Your task to perform on an android device: open device folders in google photos Image 0: 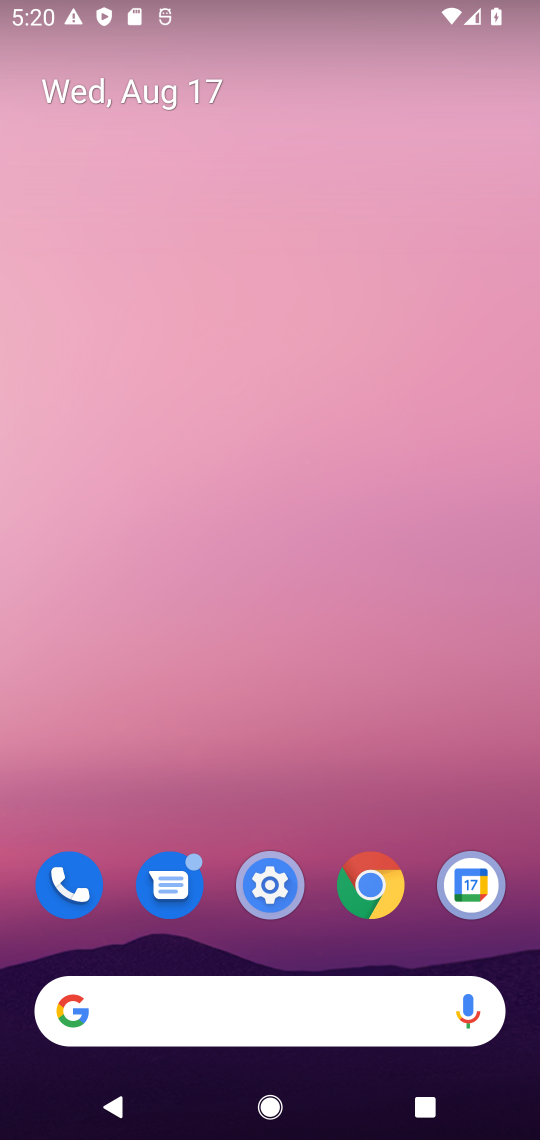
Step 0: drag from (318, 689) to (270, 10)
Your task to perform on an android device: open device folders in google photos Image 1: 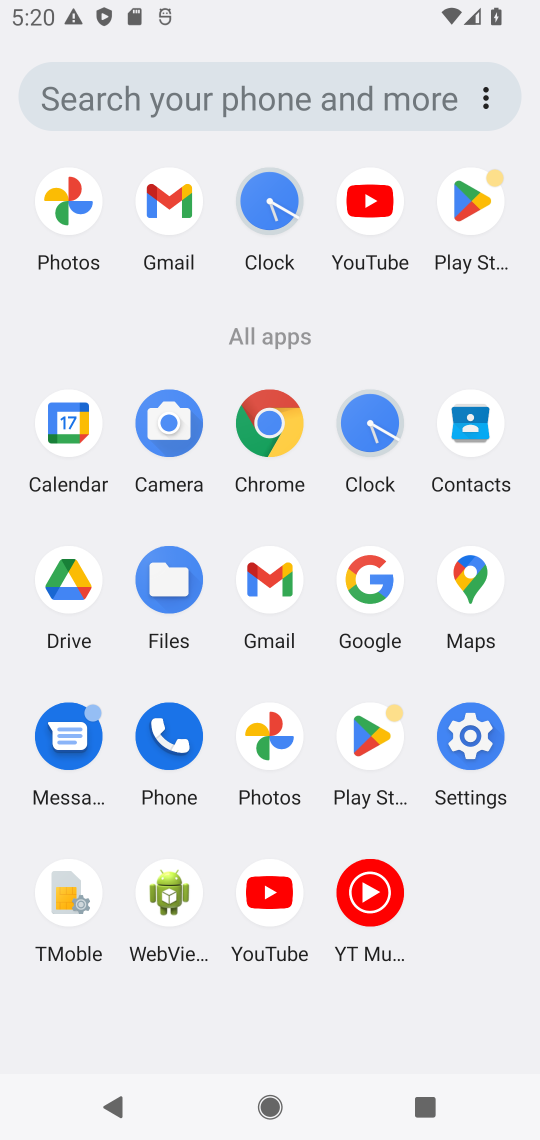
Step 1: click (256, 742)
Your task to perform on an android device: open device folders in google photos Image 2: 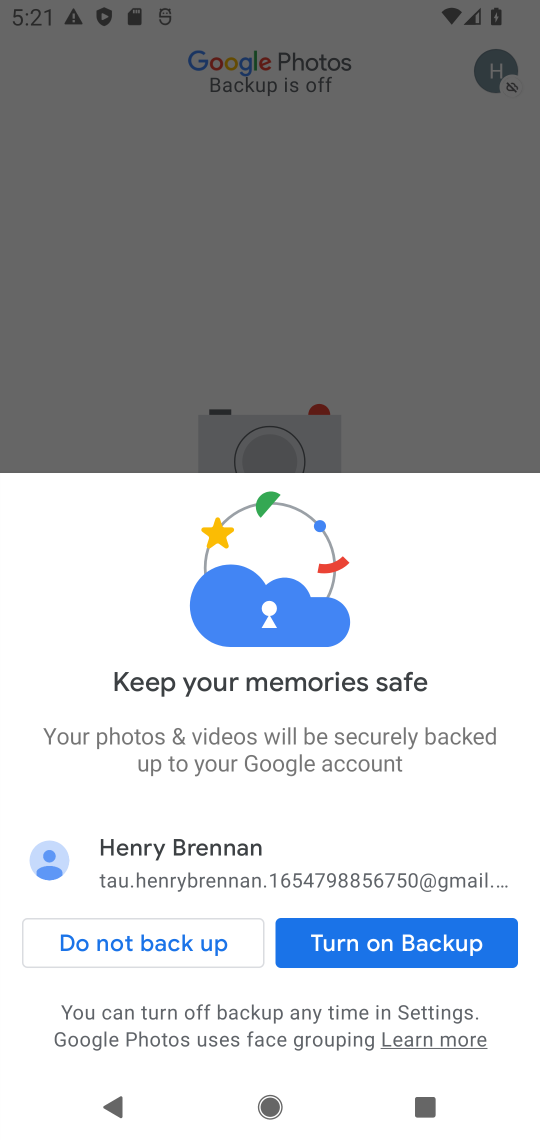
Step 2: click (383, 931)
Your task to perform on an android device: open device folders in google photos Image 3: 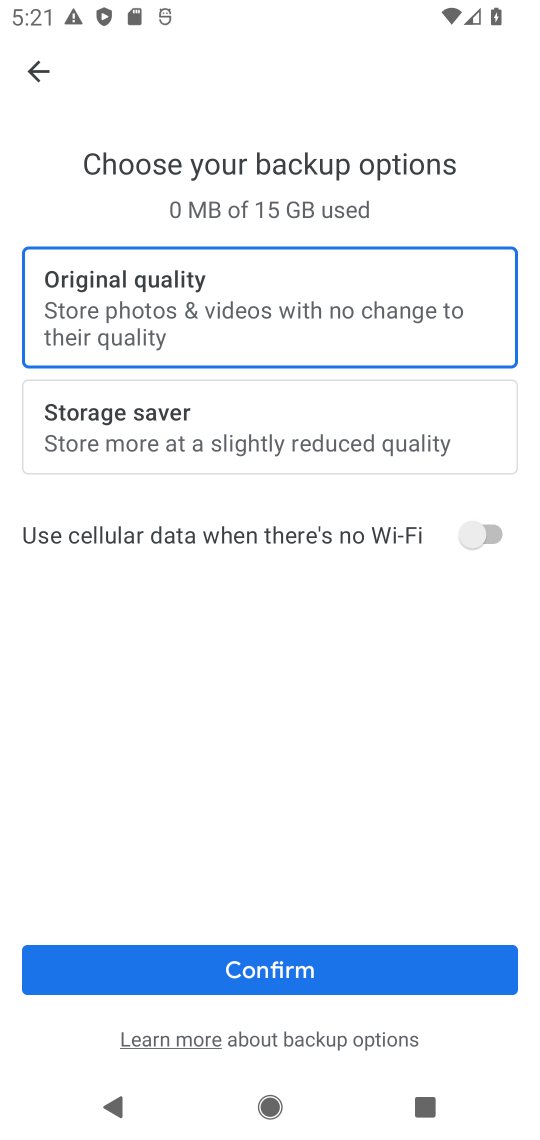
Step 3: click (366, 953)
Your task to perform on an android device: open device folders in google photos Image 4: 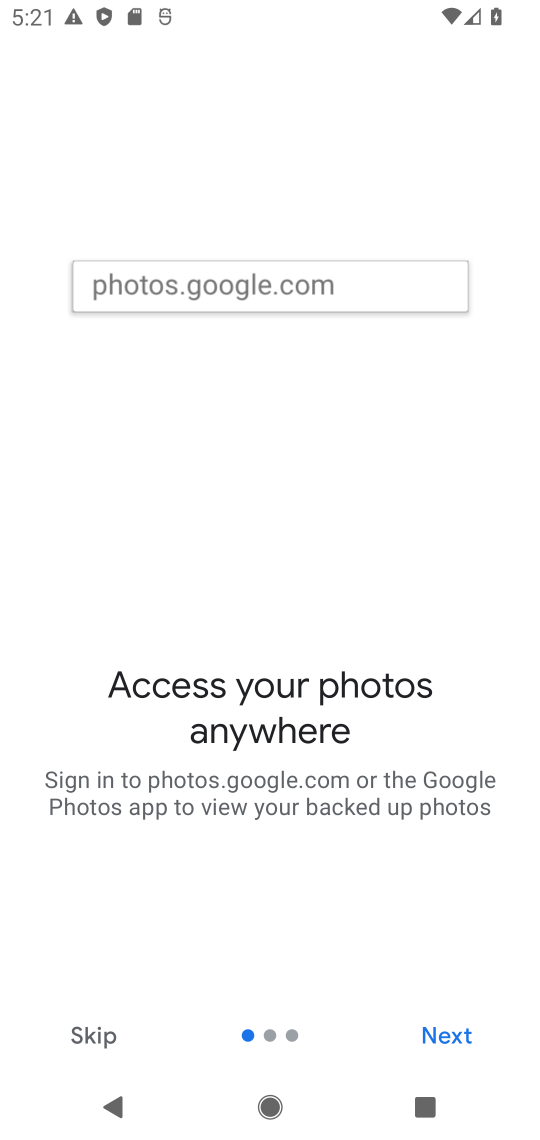
Step 4: click (452, 1021)
Your task to perform on an android device: open device folders in google photos Image 5: 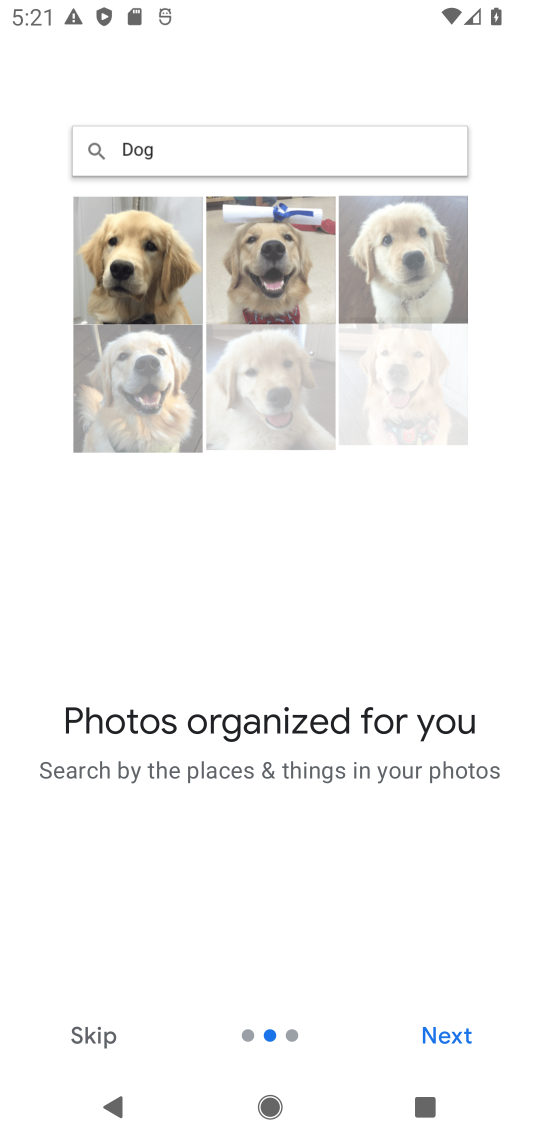
Step 5: click (445, 1033)
Your task to perform on an android device: open device folders in google photos Image 6: 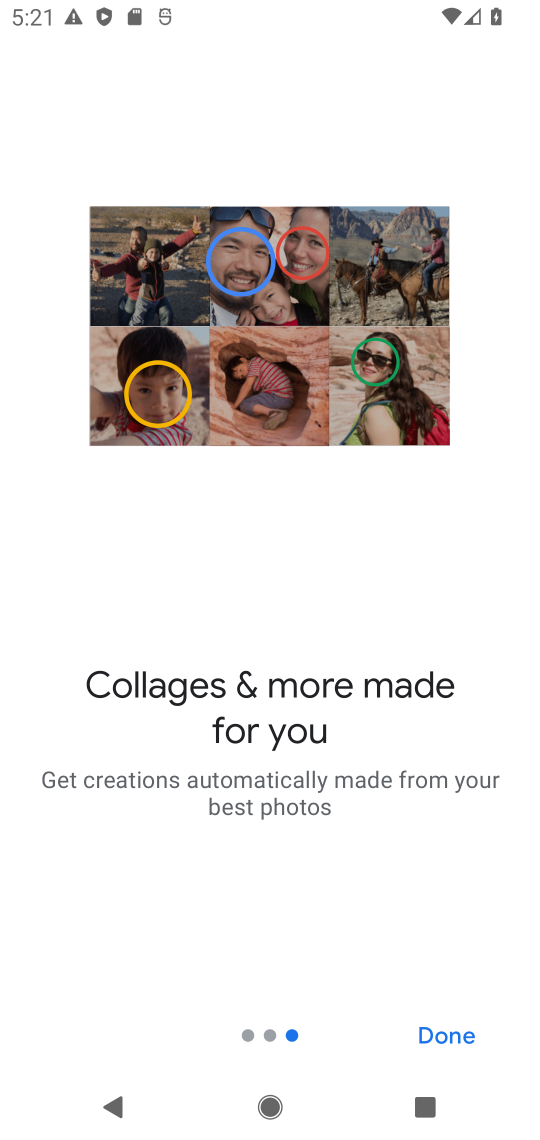
Step 6: click (445, 1033)
Your task to perform on an android device: open device folders in google photos Image 7: 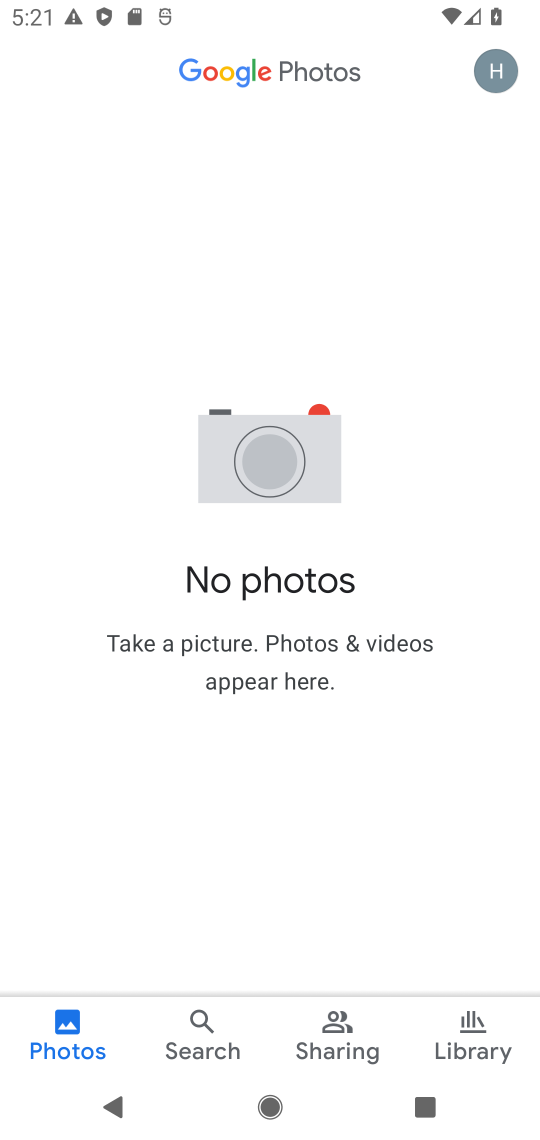
Step 7: click (484, 1010)
Your task to perform on an android device: open device folders in google photos Image 8: 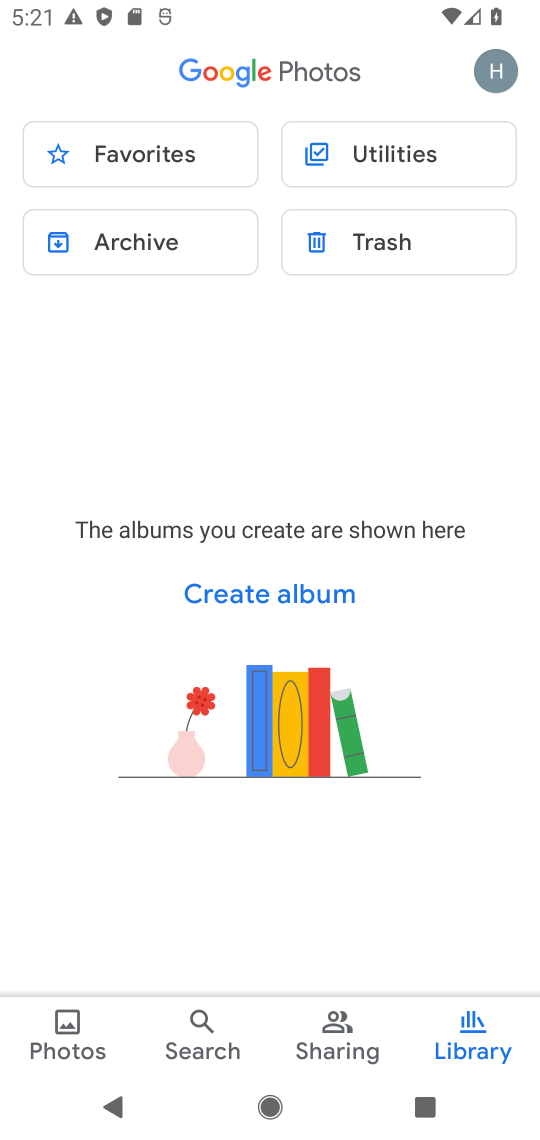
Step 8: click (344, 139)
Your task to perform on an android device: open device folders in google photos Image 9: 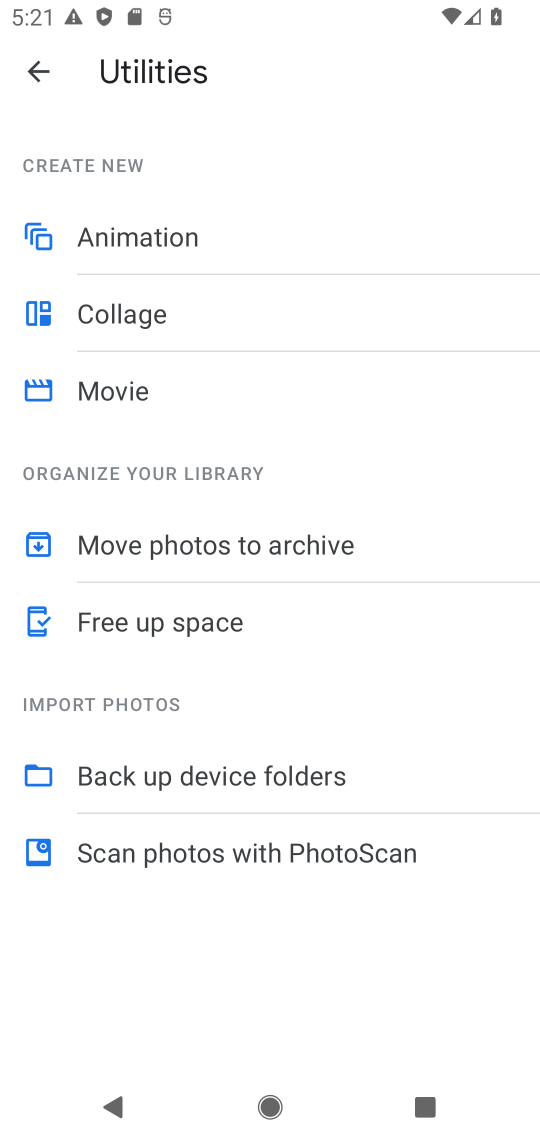
Step 9: click (152, 779)
Your task to perform on an android device: open device folders in google photos Image 10: 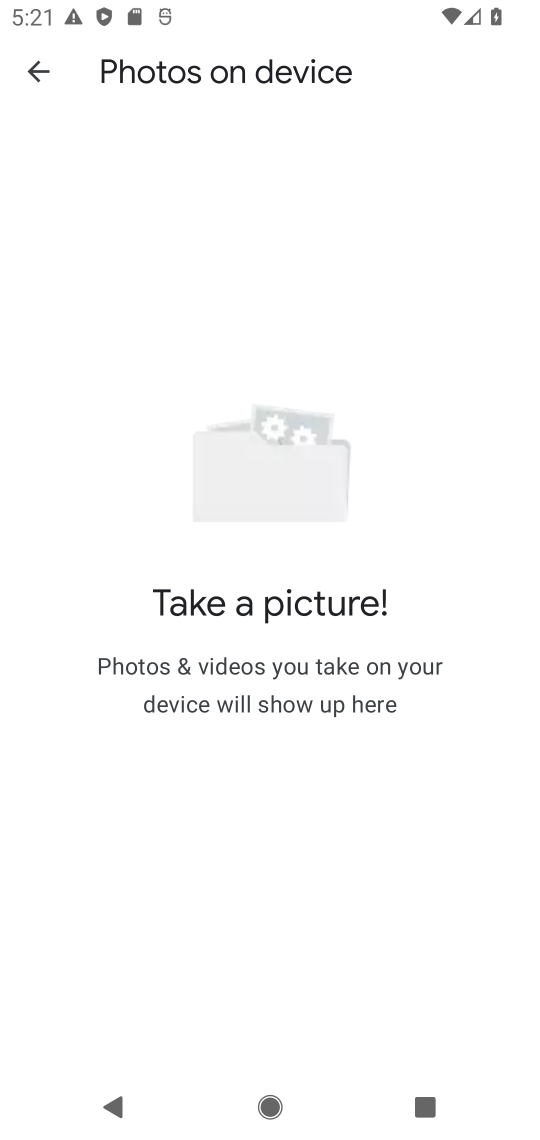
Step 10: task complete